Your task to perform on an android device: turn on notifications settings in the gmail app Image 0: 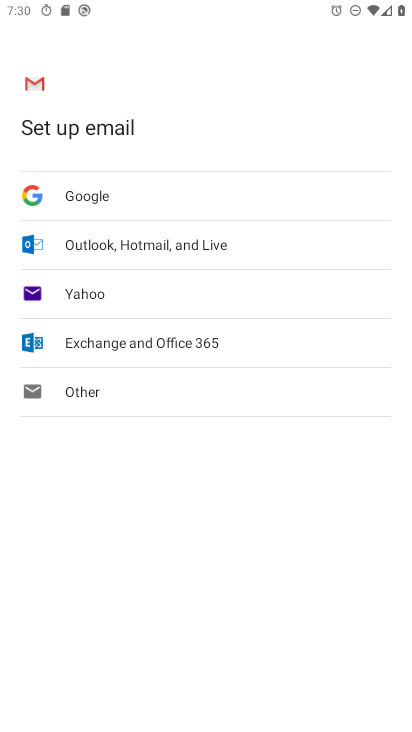
Step 0: press home button
Your task to perform on an android device: turn on notifications settings in the gmail app Image 1: 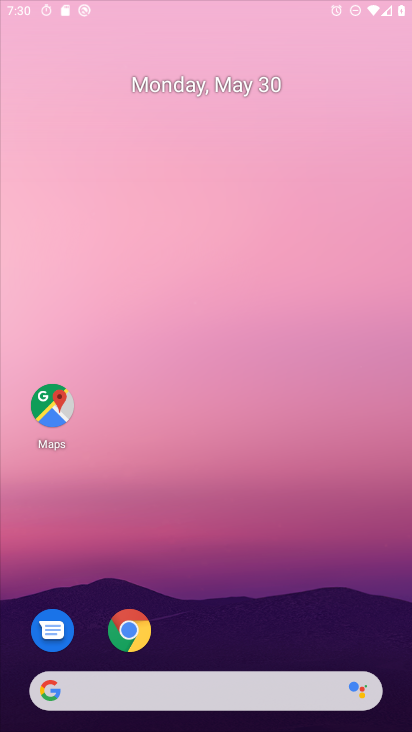
Step 1: drag from (347, 620) to (300, 39)
Your task to perform on an android device: turn on notifications settings in the gmail app Image 2: 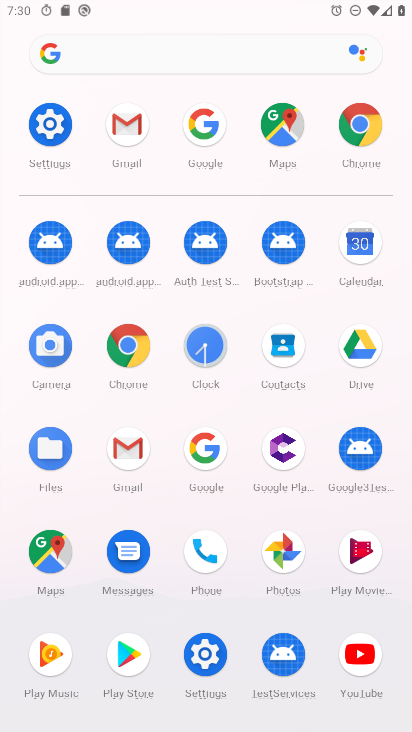
Step 2: click (124, 452)
Your task to perform on an android device: turn on notifications settings in the gmail app Image 3: 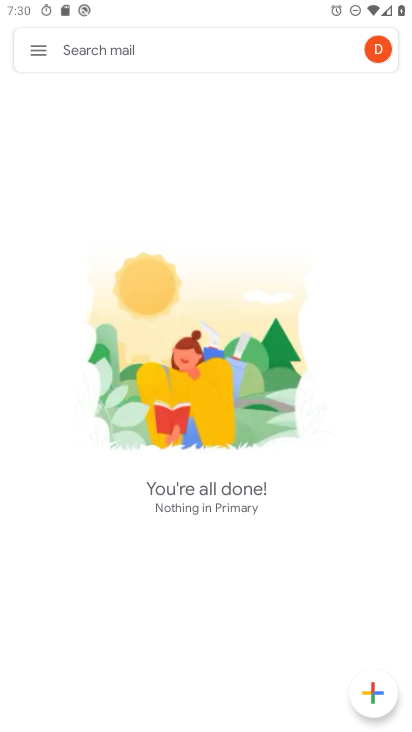
Step 3: click (24, 47)
Your task to perform on an android device: turn on notifications settings in the gmail app Image 4: 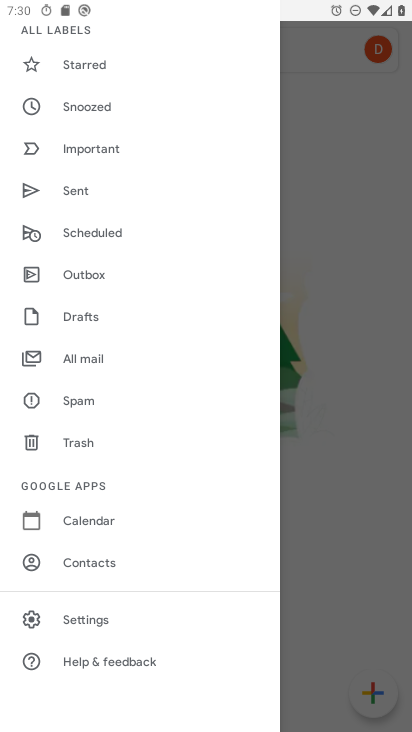
Step 4: click (107, 621)
Your task to perform on an android device: turn on notifications settings in the gmail app Image 5: 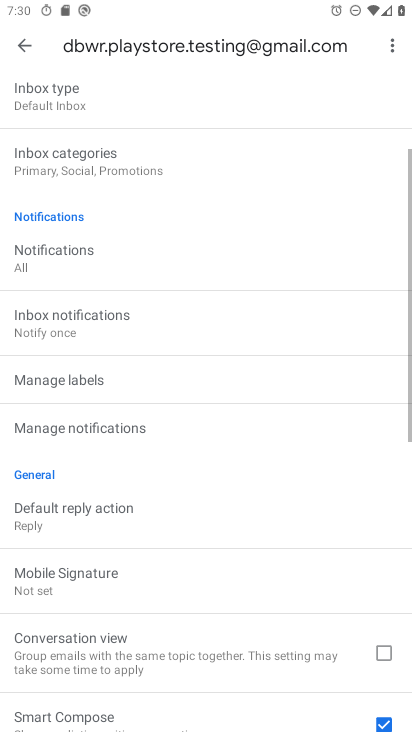
Step 5: click (81, 270)
Your task to perform on an android device: turn on notifications settings in the gmail app Image 6: 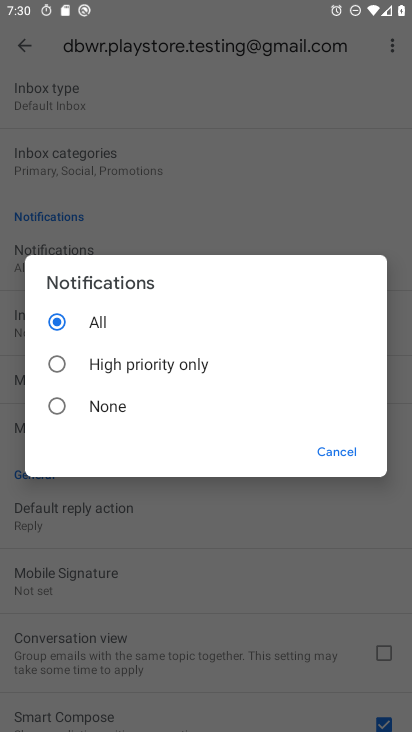
Step 6: task complete